Your task to perform on an android device: turn on sleep mode Image 0: 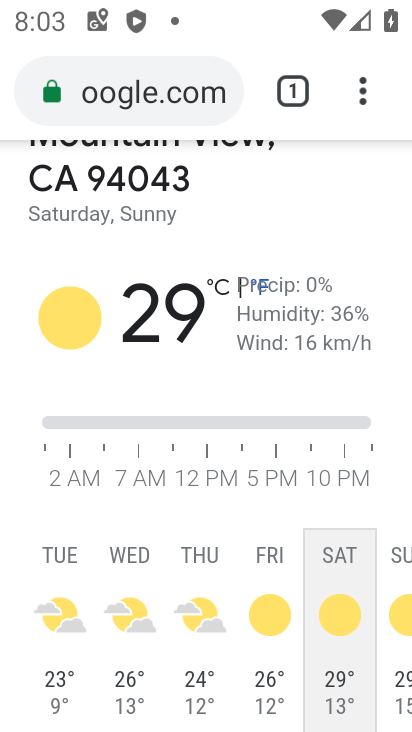
Step 0: press home button
Your task to perform on an android device: turn on sleep mode Image 1: 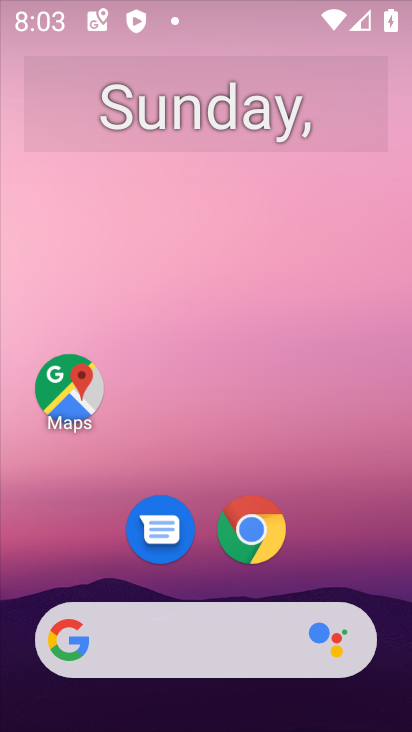
Step 1: drag from (404, 549) to (347, 159)
Your task to perform on an android device: turn on sleep mode Image 2: 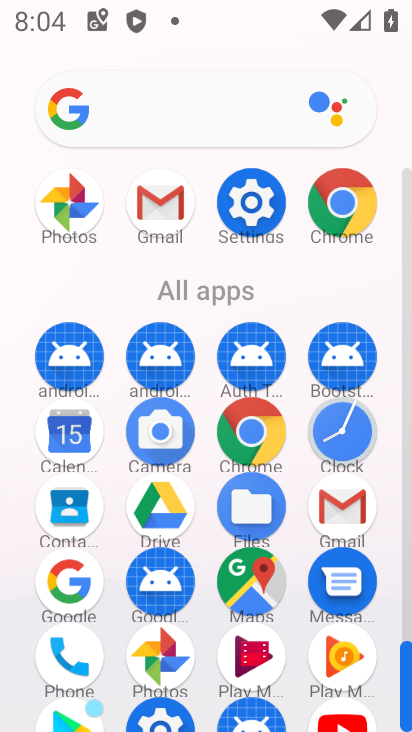
Step 2: click (250, 211)
Your task to perform on an android device: turn on sleep mode Image 3: 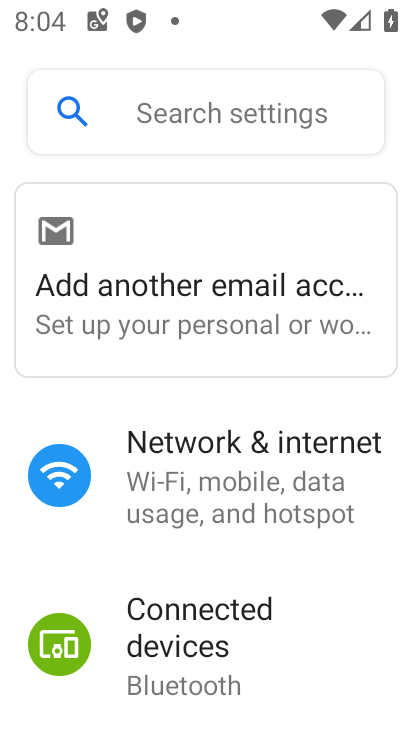
Step 3: click (167, 132)
Your task to perform on an android device: turn on sleep mode Image 4: 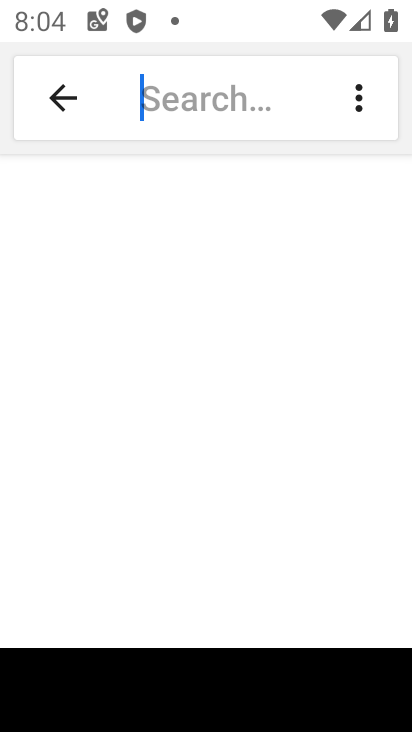
Step 4: type "sleep mode"
Your task to perform on an android device: turn on sleep mode Image 5: 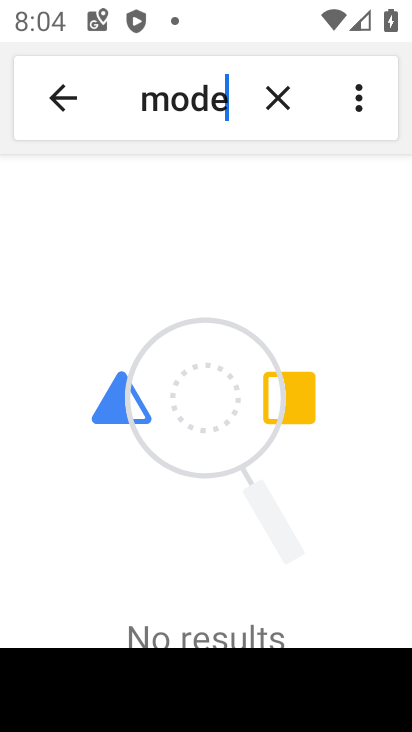
Step 5: task complete